Your task to perform on an android device: add a contact in the contacts app Image 0: 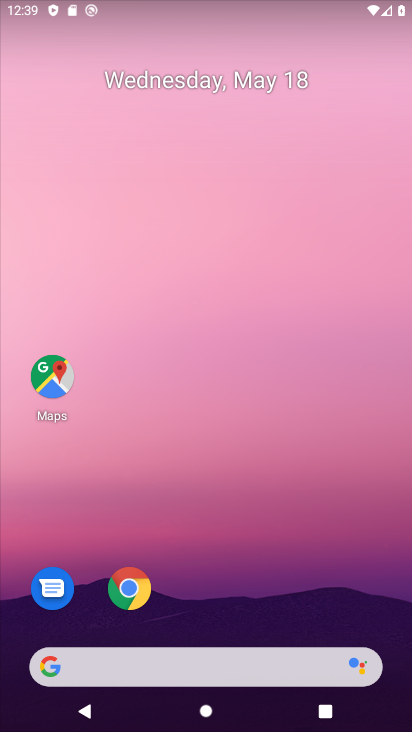
Step 0: drag from (355, 594) to (367, 169)
Your task to perform on an android device: add a contact in the contacts app Image 1: 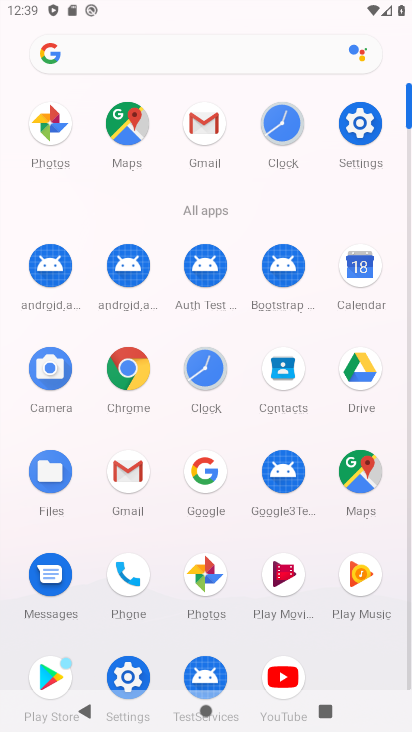
Step 1: drag from (389, 652) to (389, 426)
Your task to perform on an android device: add a contact in the contacts app Image 2: 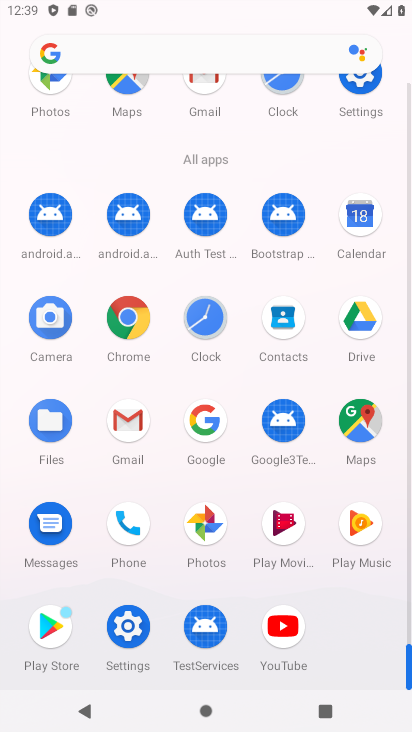
Step 2: click (278, 352)
Your task to perform on an android device: add a contact in the contacts app Image 3: 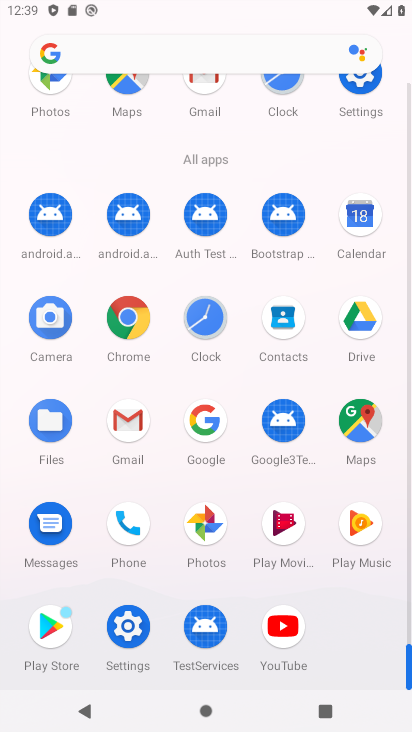
Step 3: click (277, 315)
Your task to perform on an android device: add a contact in the contacts app Image 4: 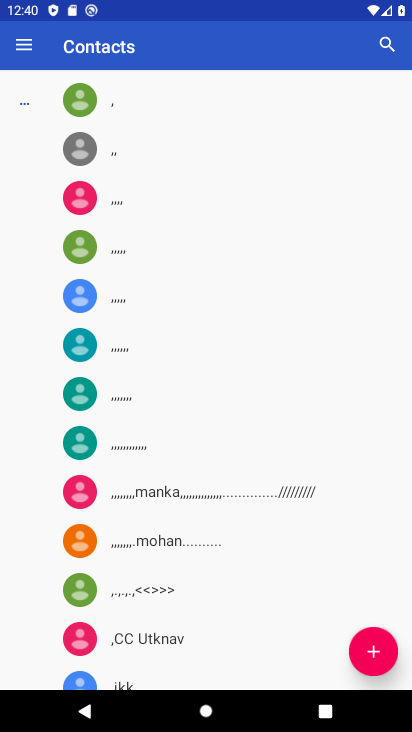
Step 4: click (369, 663)
Your task to perform on an android device: add a contact in the contacts app Image 5: 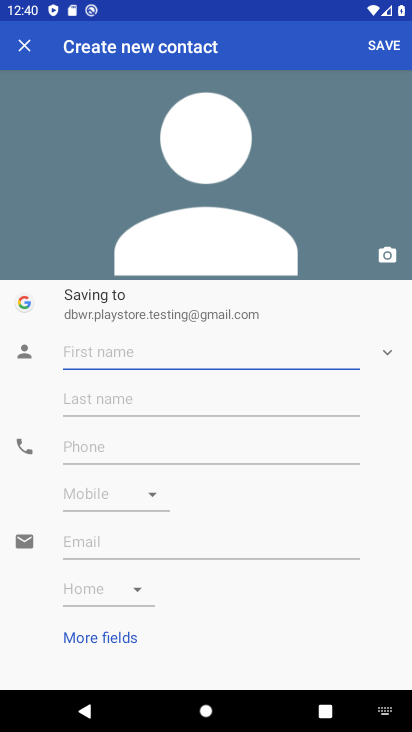
Step 5: click (226, 353)
Your task to perform on an android device: add a contact in the contacts app Image 6: 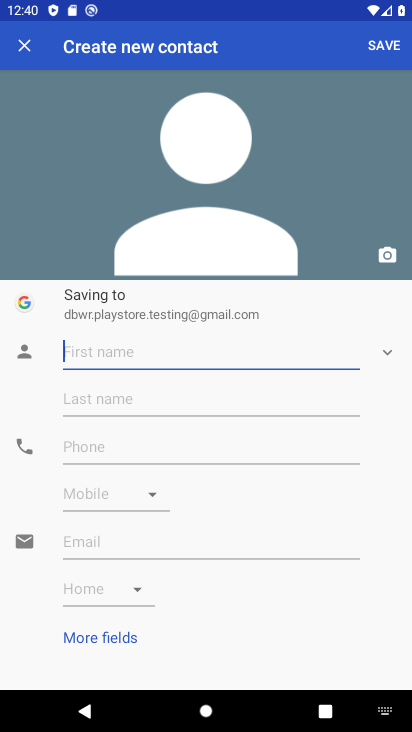
Step 6: type "lolll"
Your task to perform on an android device: add a contact in the contacts app Image 7: 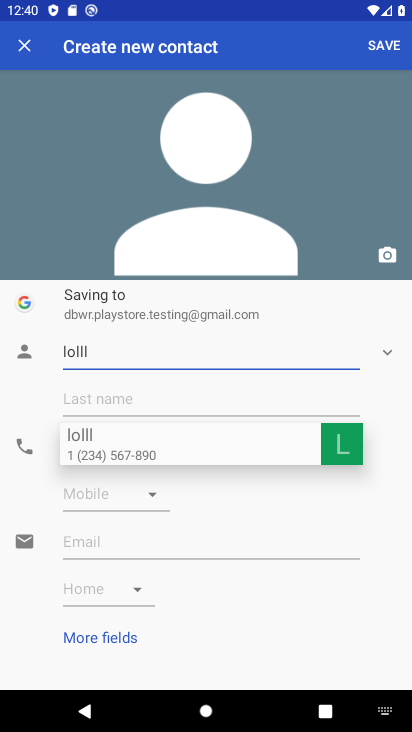
Step 7: click (388, 427)
Your task to perform on an android device: add a contact in the contacts app Image 8: 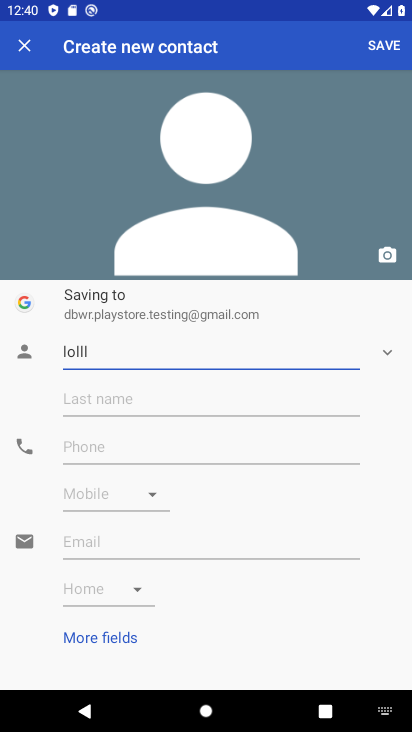
Step 8: click (108, 449)
Your task to perform on an android device: add a contact in the contacts app Image 9: 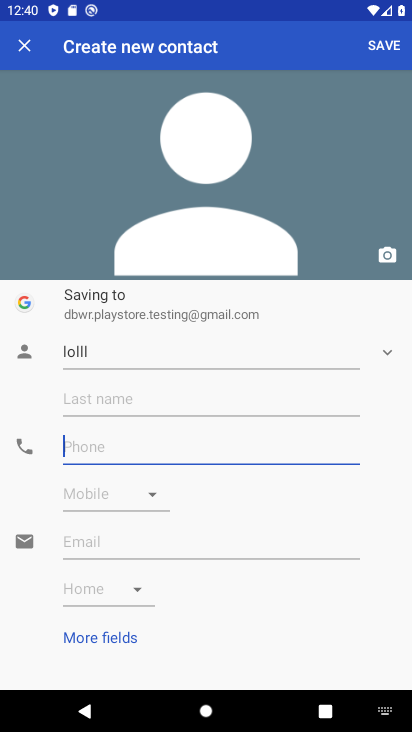
Step 9: click (149, 449)
Your task to perform on an android device: add a contact in the contacts app Image 10: 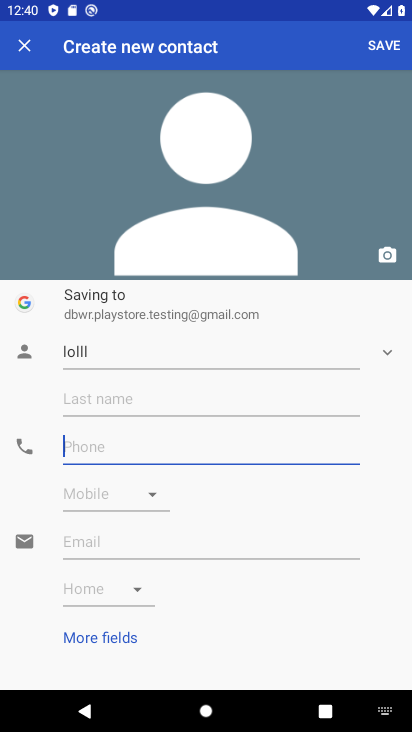
Step 10: type "123456789"
Your task to perform on an android device: add a contact in the contacts app Image 11: 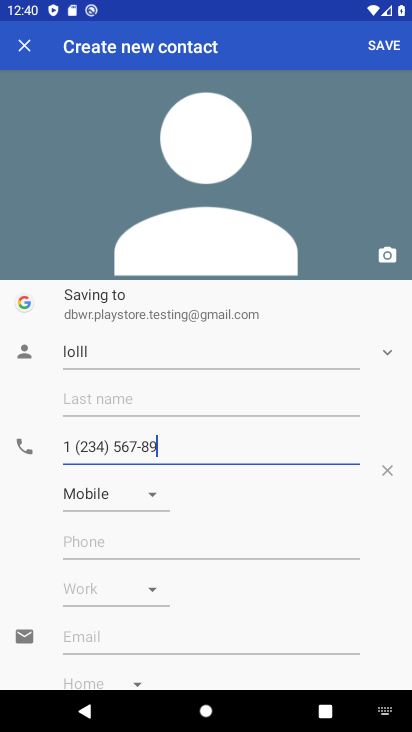
Step 11: click (378, 46)
Your task to perform on an android device: add a contact in the contacts app Image 12: 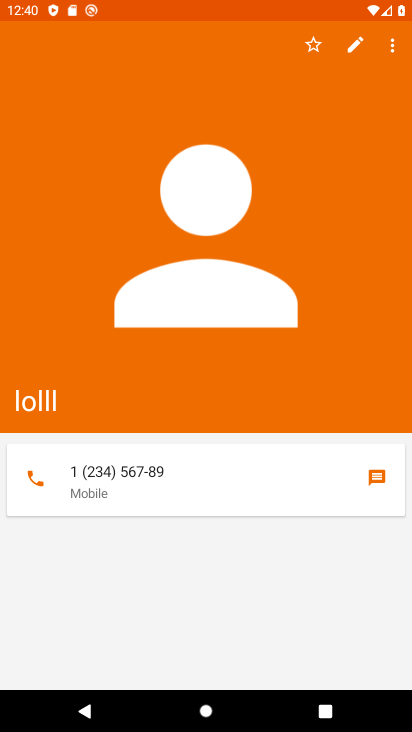
Step 12: task complete